Your task to perform on an android device: change the upload size in google photos Image 0: 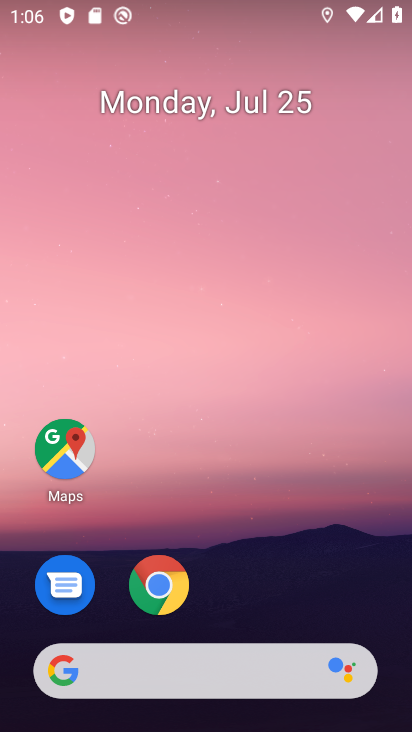
Step 0: drag from (273, 644) to (320, 167)
Your task to perform on an android device: change the upload size in google photos Image 1: 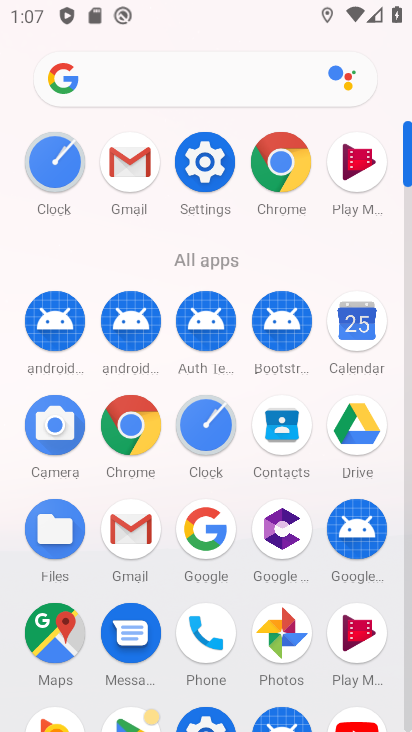
Step 1: click (278, 644)
Your task to perform on an android device: change the upload size in google photos Image 2: 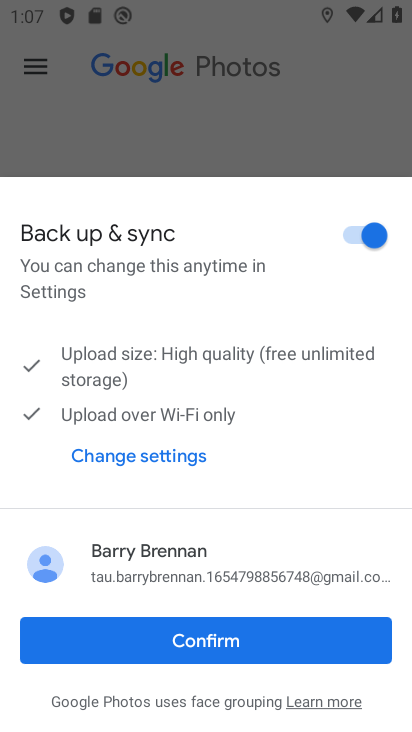
Step 2: click (180, 627)
Your task to perform on an android device: change the upload size in google photos Image 3: 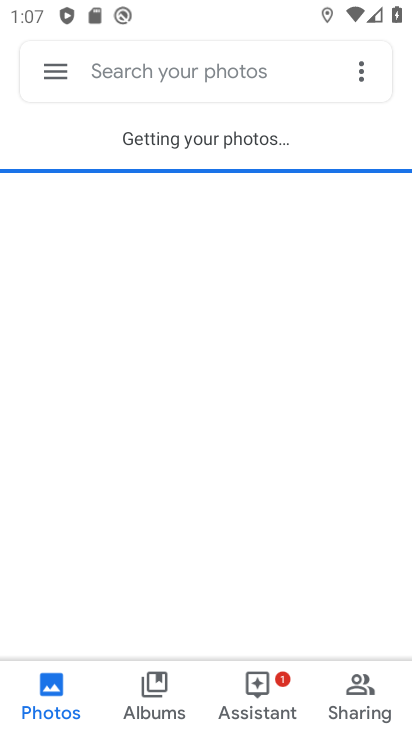
Step 3: click (48, 82)
Your task to perform on an android device: change the upload size in google photos Image 4: 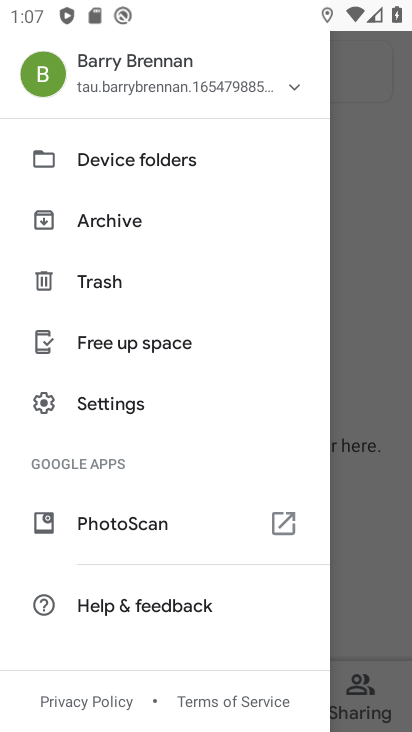
Step 4: click (90, 412)
Your task to perform on an android device: change the upload size in google photos Image 5: 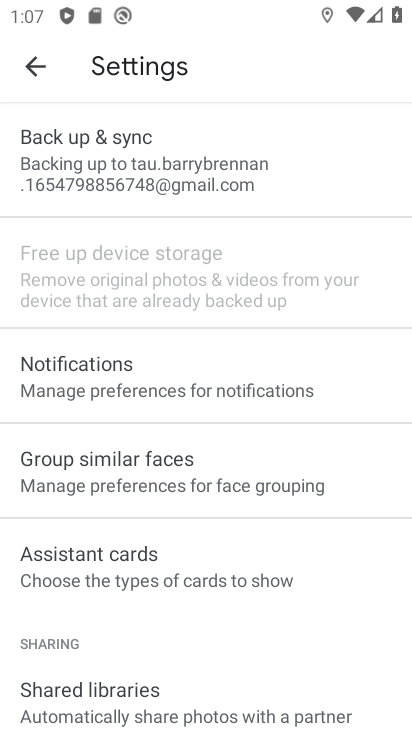
Step 5: click (157, 175)
Your task to perform on an android device: change the upload size in google photos Image 6: 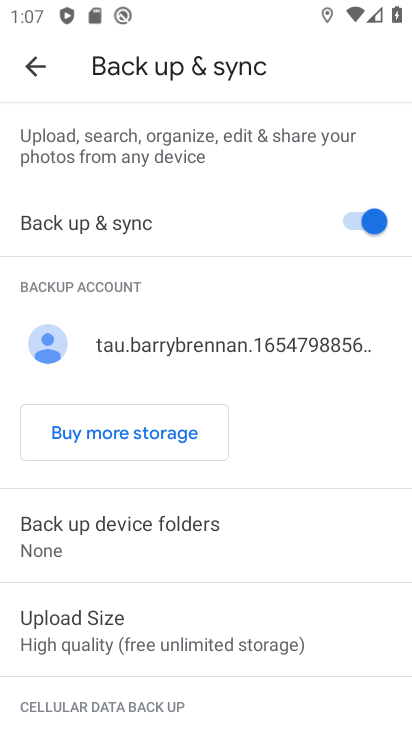
Step 6: click (139, 629)
Your task to perform on an android device: change the upload size in google photos Image 7: 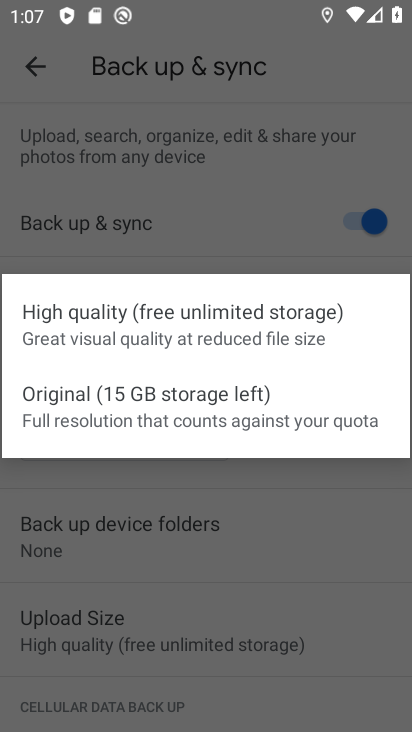
Step 7: click (117, 407)
Your task to perform on an android device: change the upload size in google photos Image 8: 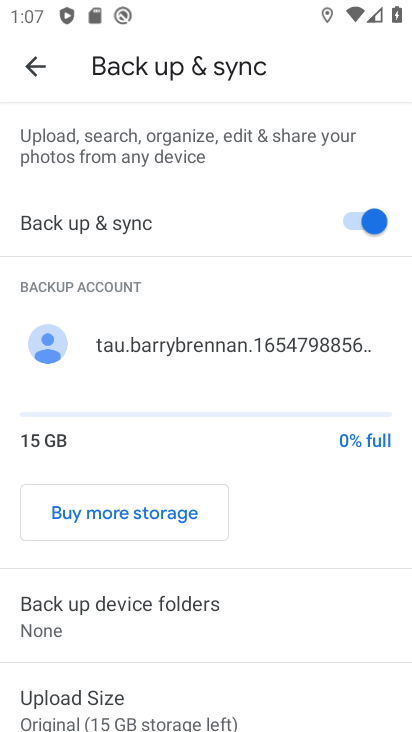
Step 8: task complete